Your task to perform on an android device: toggle translation in the chrome app Image 0: 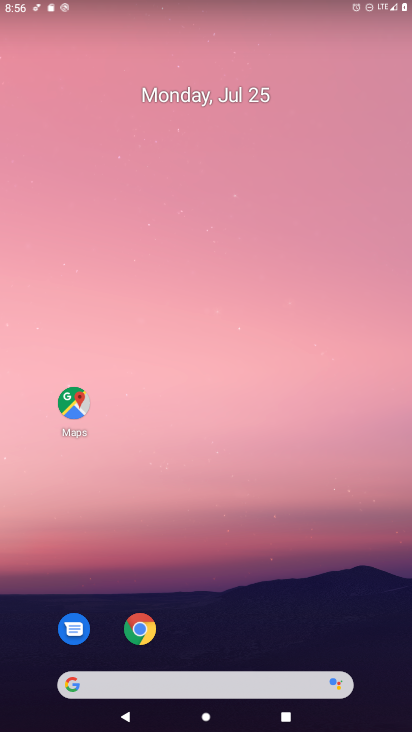
Step 0: click (137, 631)
Your task to perform on an android device: toggle translation in the chrome app Image 1: 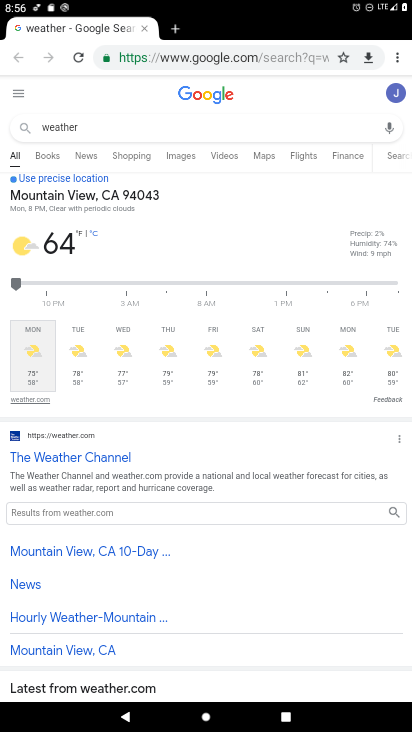
Step 1: click (397, 58)
Your task to perform on an android device: toggle translation in the chrome app Image 2: 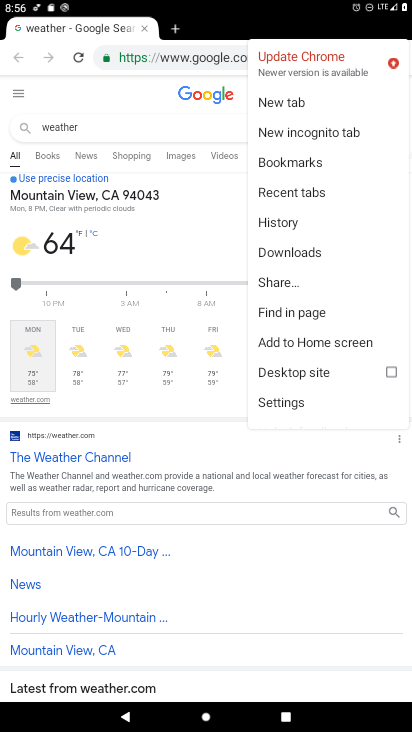
Step 2: click (289, 403)
Your task to perform on an android device: toggle translation in the chrome app Image 3: 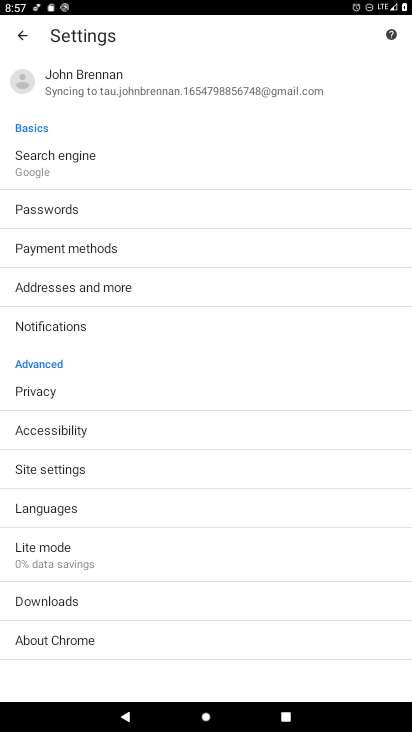
Step 3: click (68, 510)
Your task to perform on an android device: toggle translation in the chrome app Image 4: 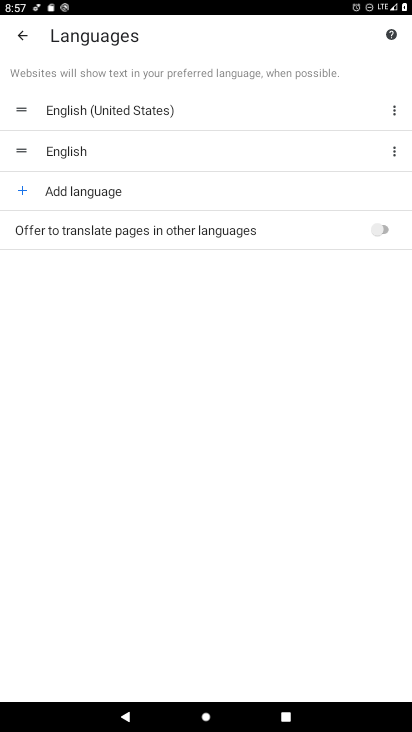
Step 4: click (383, 231)
Your task to perform on an android device: toggle translation in the chrome app Image 5: 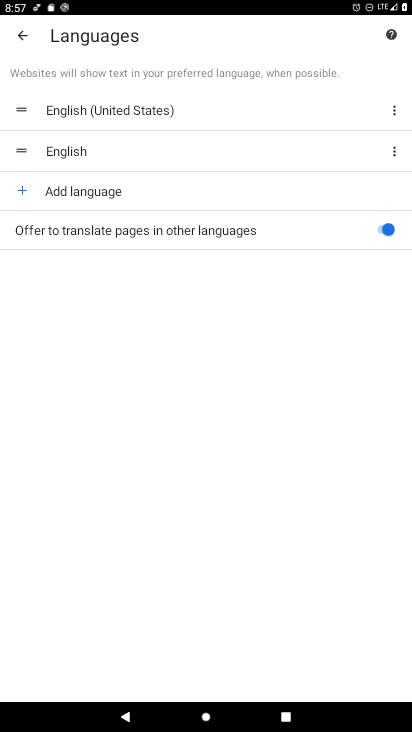
Step 5: task complete